Your task to perform on an android device: find snoozed emails in the gmail app Image 0: 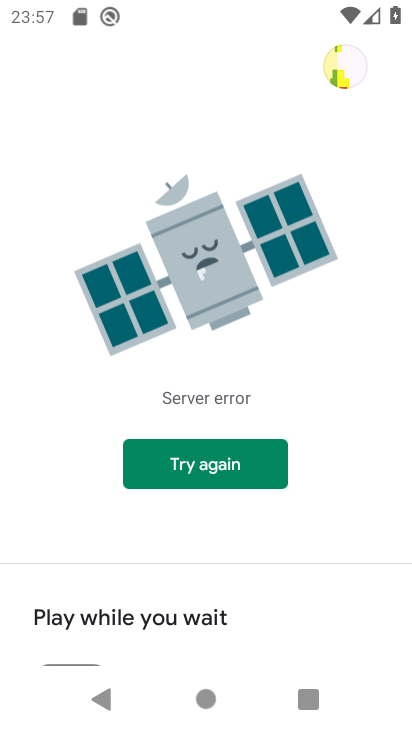
Step 0: press home button
Your task to perform on an android device: find snoozed emails in the gmail app Image 1: 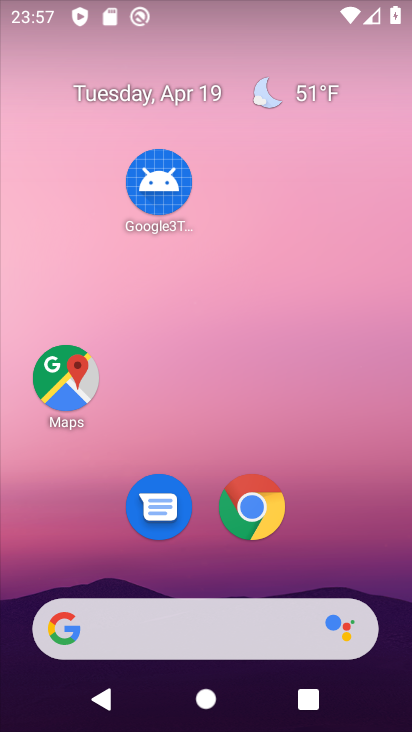
Step 1: drag from (327, 557) to (380, 3)
Your task to perform on an android device: find snoozed emails in the gmail app Image 2: 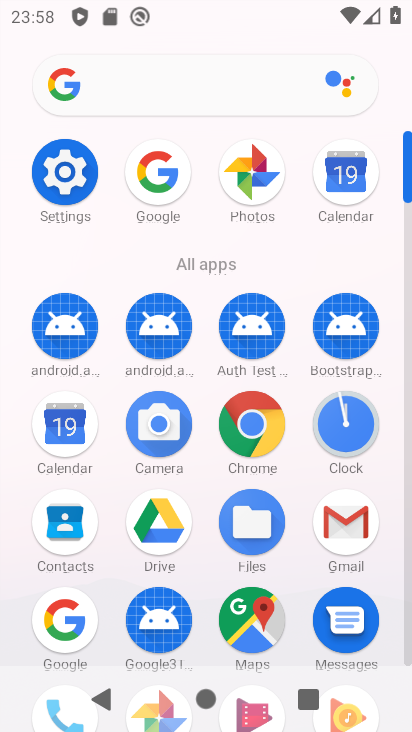
Step 2: click (343, 532)
Your task to perform on an android device: find snoozed emails in the gmail app Image 3: 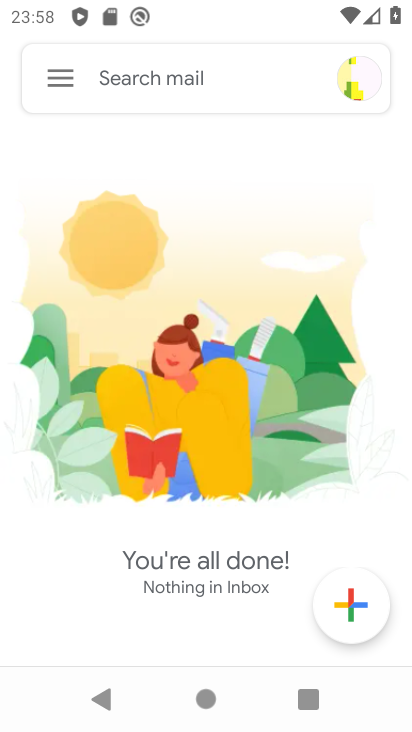
Step 3: click (57, 75)
Your task to perform on an android device: find snoozed emails in the gmail app Image 4: 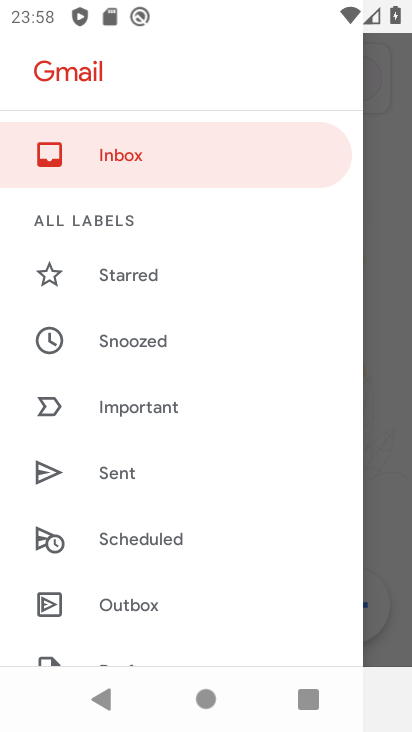
Step 4: click (137, 338)
Your task to perform on an android device: find snoozed emails in the gmail app Image 5: 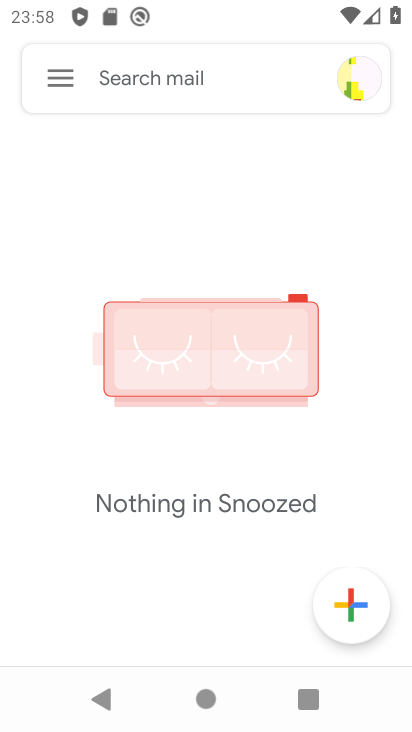
Step 5: task complete